Your task to perform on an android device: turn pop-ups off in chrome Image 0: 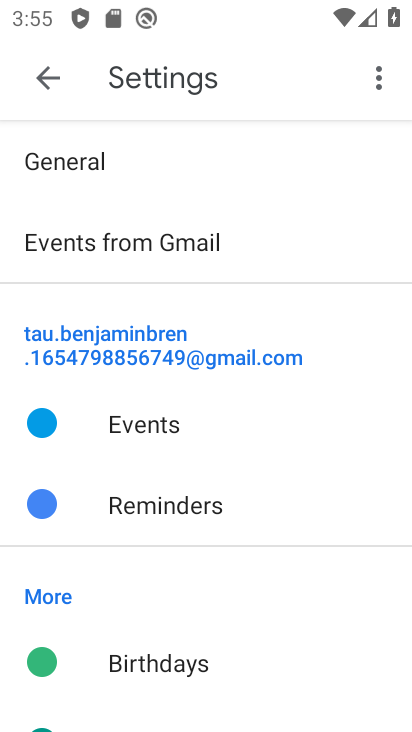
Step 0: press back button
Your task to perform on an android device: turn pop-ups off in chrome Image 1: 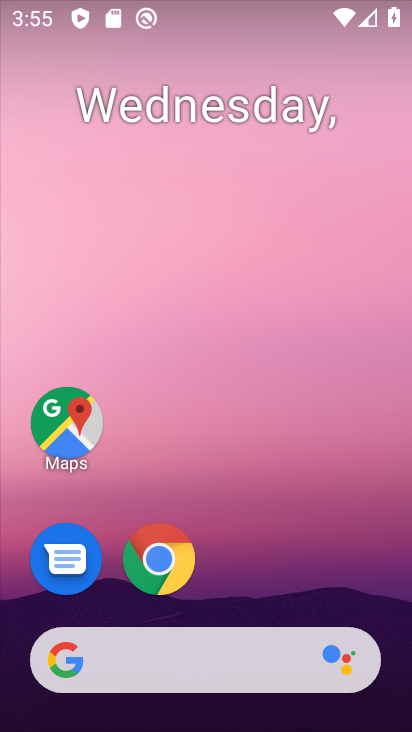
Step 1: click (160, 548)
Your task to perform on an android device: turn pop-ups off in chrome Image 2: 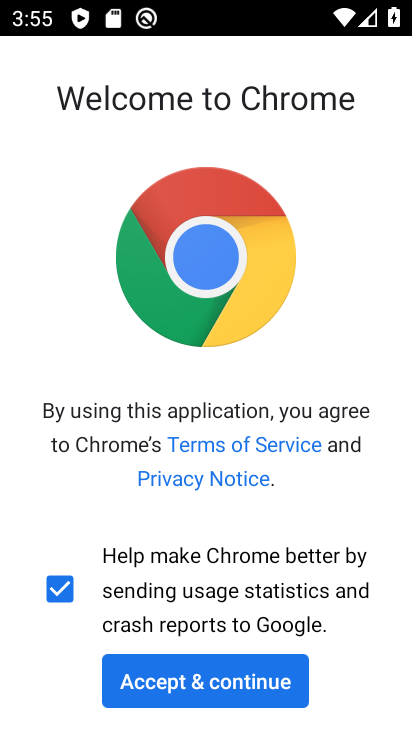
Step 2: click (195, 682)
Your task to perform on an android device: turn pop-ups off in chrome Image 3: 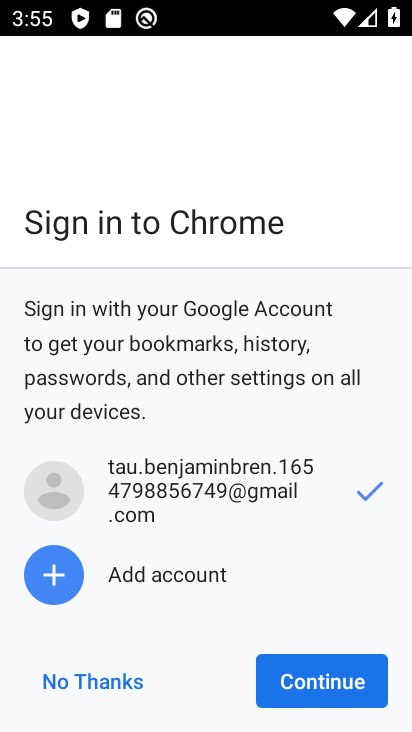
Step 3: click (338, 689)
Your task to perform on an android device: turn pop-ups off in chrome Image 4: 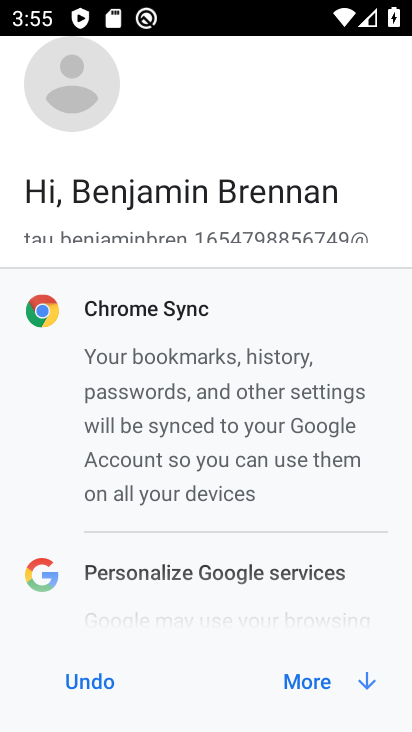
Step 4: click (308, 678)
Your task to perform on an android device: turn pop-ups off in chrome Image 5: 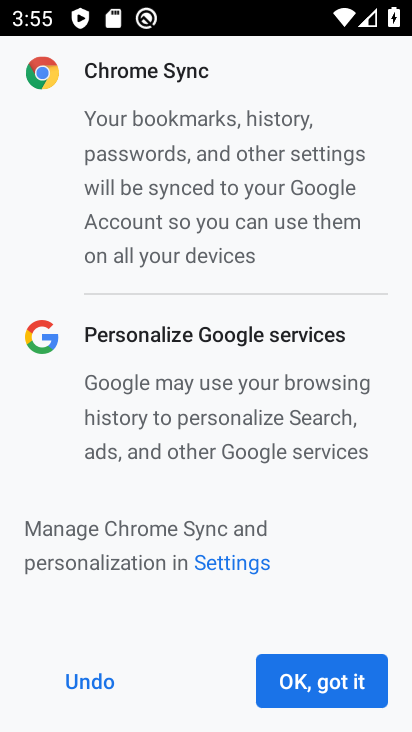
Step 5: click (303, 684)
Your task to perform on an android device: turn pop-ups off in chrome Image 6: 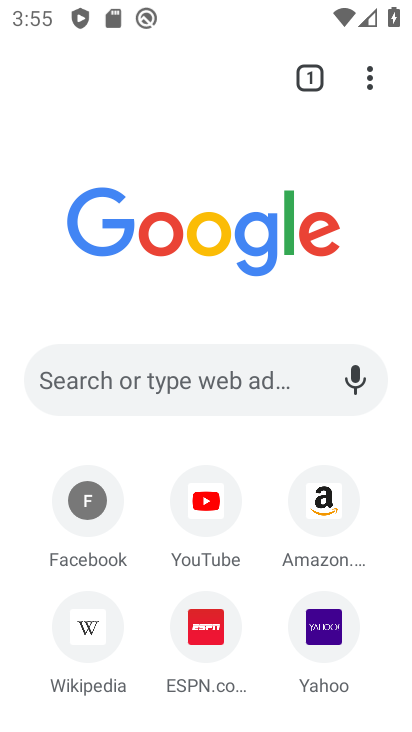
Step 6: drag from (369, 83) to (119, 613)
Your task to perform on an android device: turn pop-ups off in chrome Image 7: 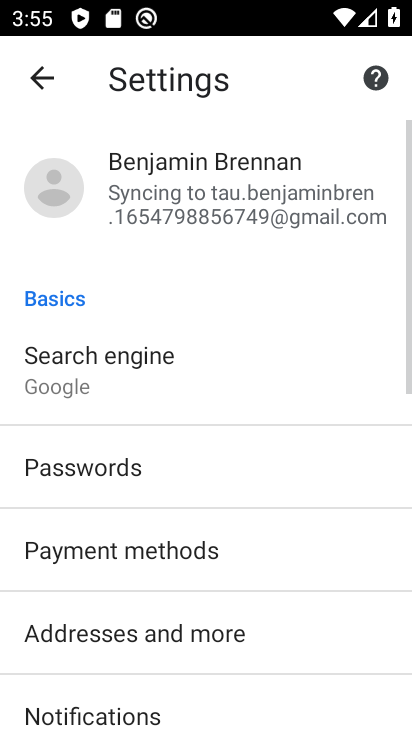
Step 7: drag from (155, 679) to (253, 126)
Your task to perform on an android device: turn pop-ups off in chrome Image 8: 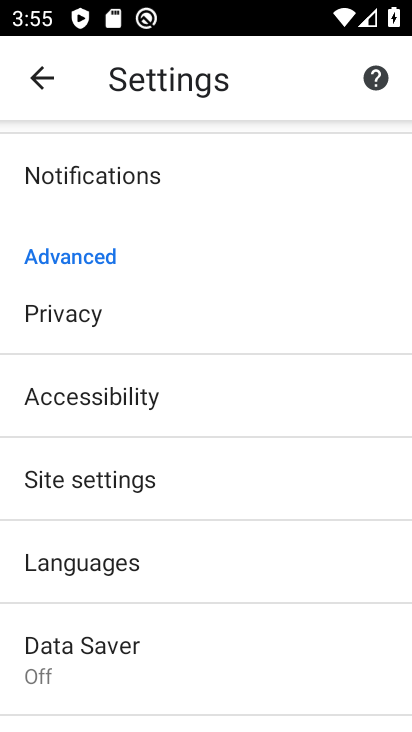
Step 8: click (81, 489)
Your task to perform on an android device: turn pop-ups off in chrome Image 9: 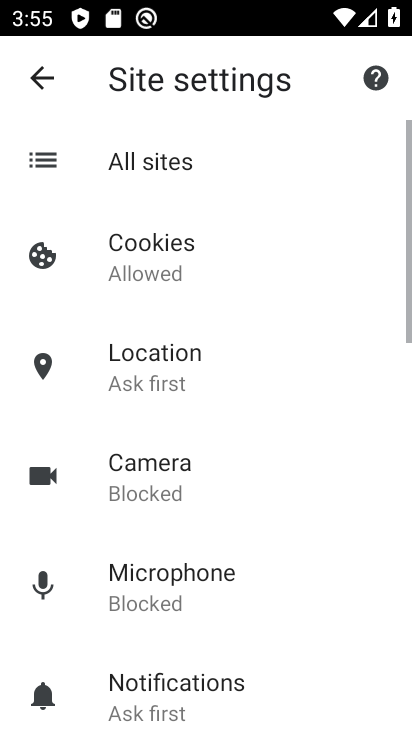
Step 9: drag from (209, 694) to (284, 51)
Your task to perform on an android device: turn pop-ups off in chrome Image 10: 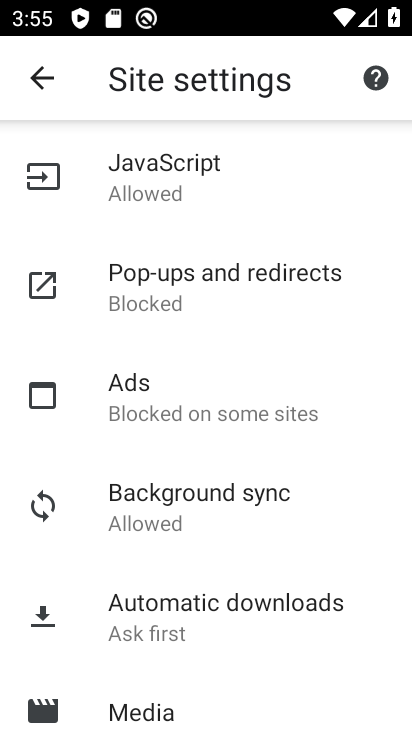
Step 10: click (188, 297)
Your task to perform on an android device: turn pop-ups off in chrome Image 11: 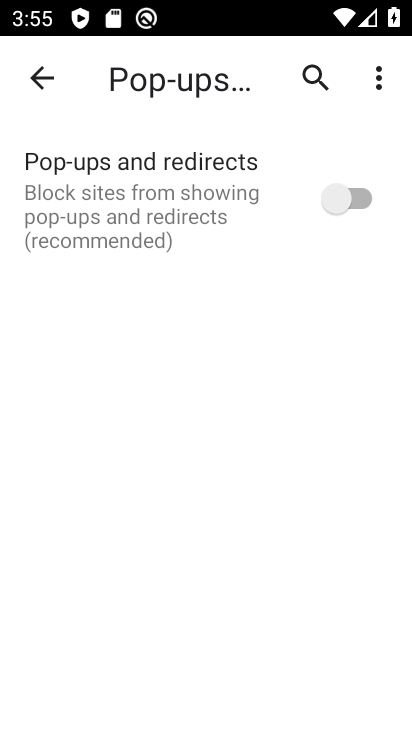
Step 11: task complete